Your task to perform on an android device: Go to CNN.com Image 0: 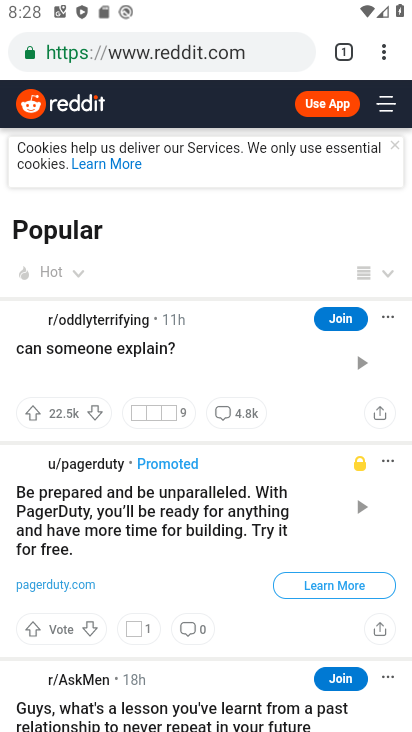
Step 0: press home button
Your task to perform on an android device: Go to CNN.com Image 1: 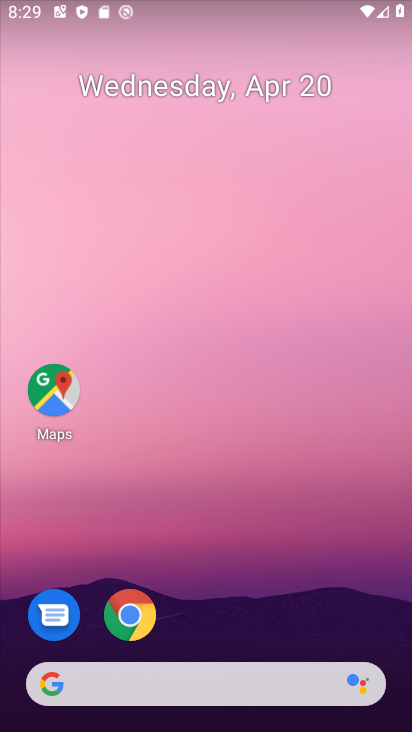
Step 1: click (129, 611)
Your task to perform on an android device: Go to CNN.com Image 2: 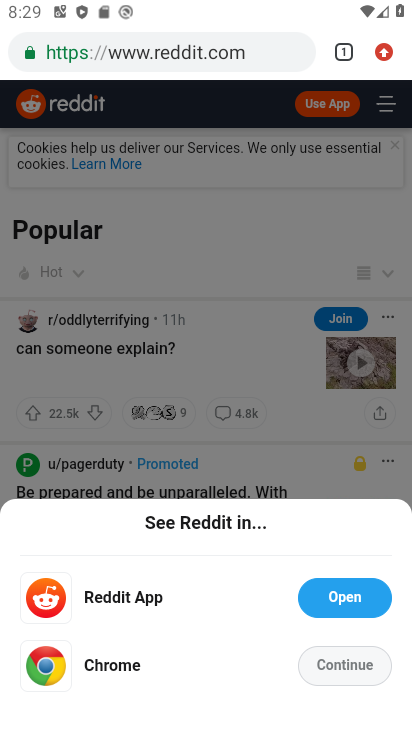
Step 2: click (293, 58)
Your task to perform on an android device: Go to CNN.com Image 3: 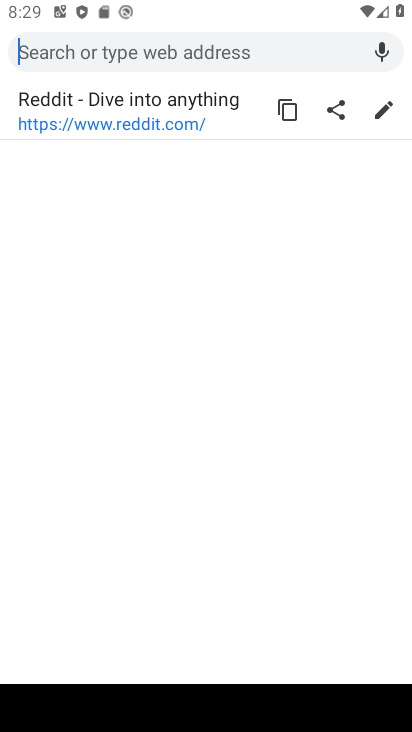
Step 3: click (293, 58)
Your task to perform on an android device: Go to CNN.com Image 4: 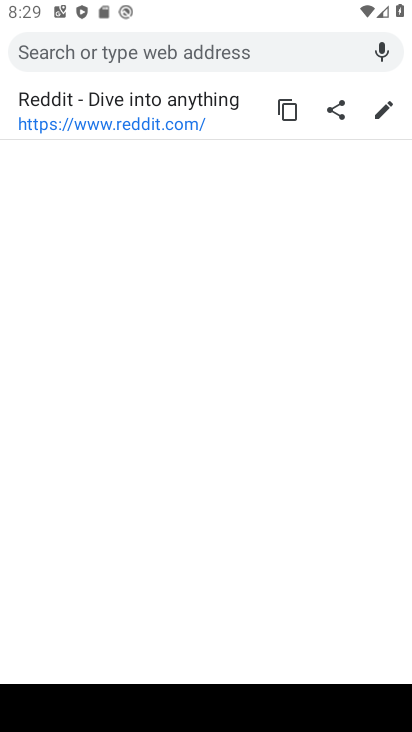
Step 4: type "CNN.com"
Your task to perform on an android device: Go to CNN.com Image 5: 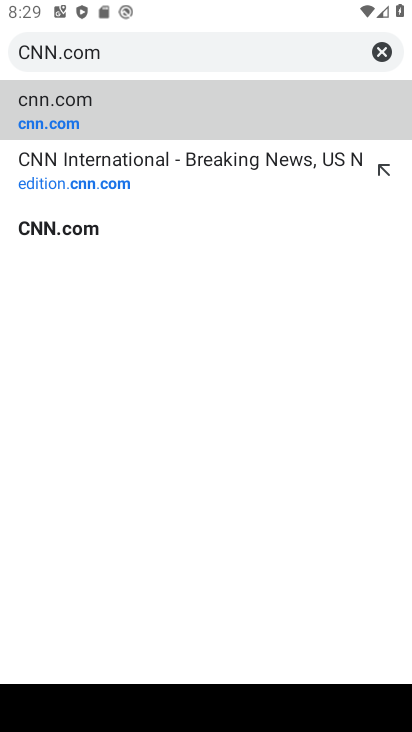
Step 5: click (196, 165)
Your task to perform on an android device: Go to CNN.com Image 6: 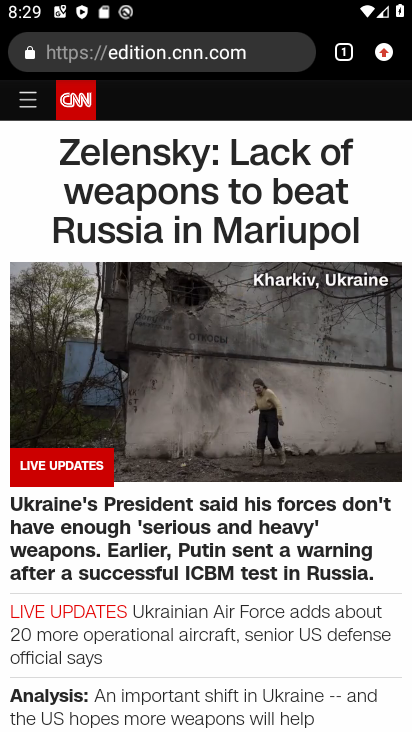
Step 6: task complete